Your task to perform on an android device: Go to ESPN.com Image 0: 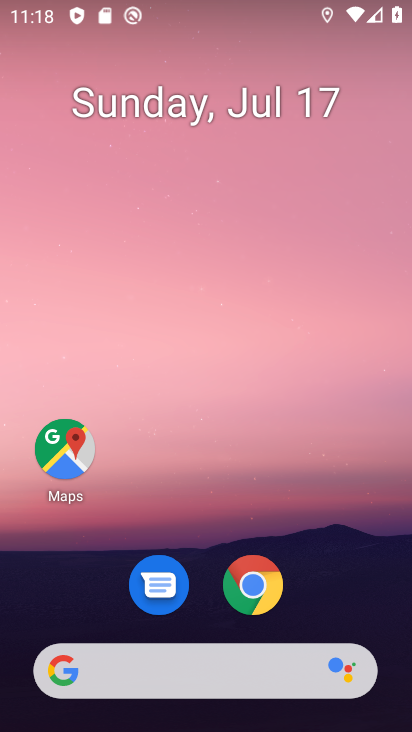
Step 0: click (263, 667)
Your task to perform on an android device: Go to ESPN.com Image 1: 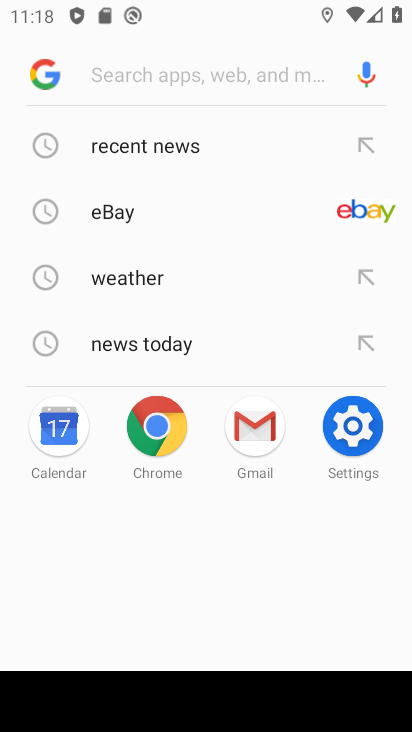
Step 1: type "espn.com"
Your task to perform on an android device: Go to ESPN.com Image 2: 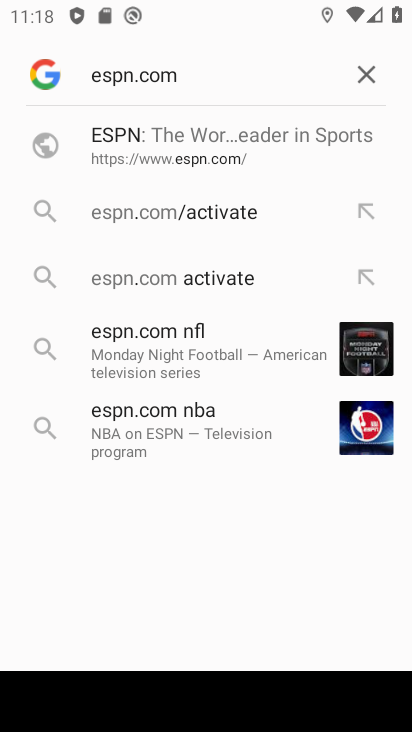
Step 2: click (210, 139)
Your task to perform on an android device: Go to ESPN.com Image 3: 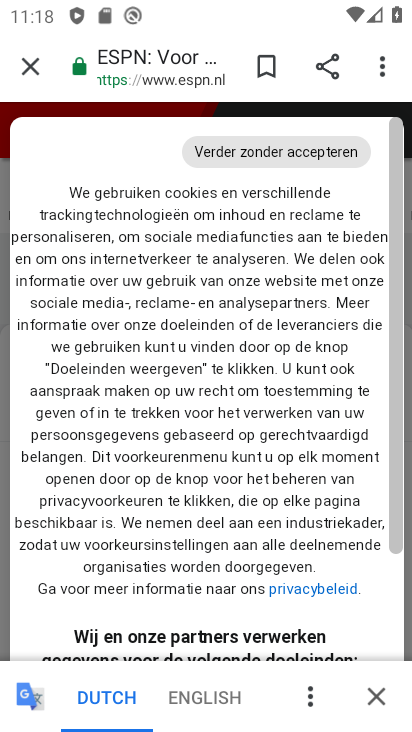
Step 3: task complete